Your task to perform on an android device: toggle pop-ups in chrome Image 0: 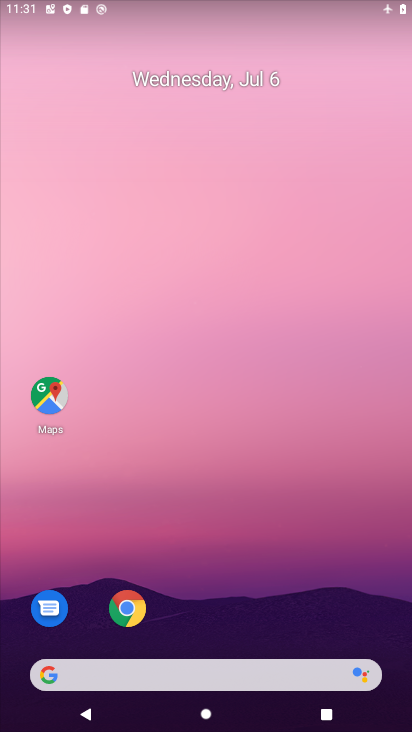
Step 0: click (123, 606)
Your task to perform on an android device: toggle pop-ups in chrome Image 1: 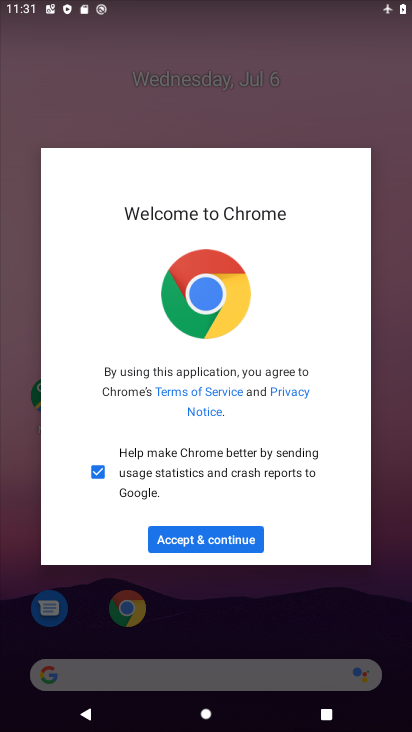
Step 1: click (179, 548)
Your task to perform on an android device: toggle pop-ups in chrome Image 2: 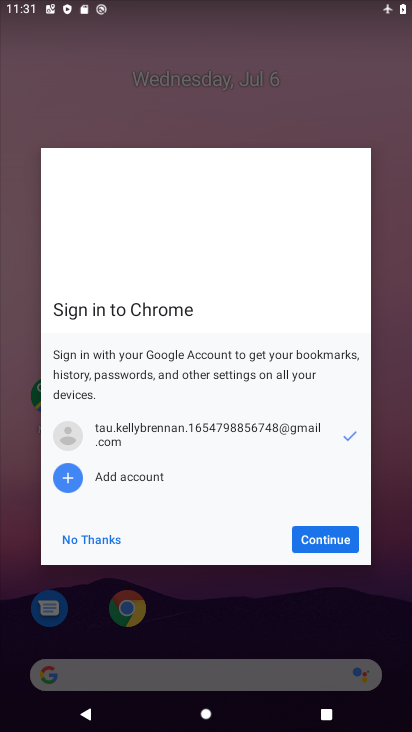
Step 2: click (298, 535)
Your task to perform on an android device: toggle pop-ups in chrome Image 3: 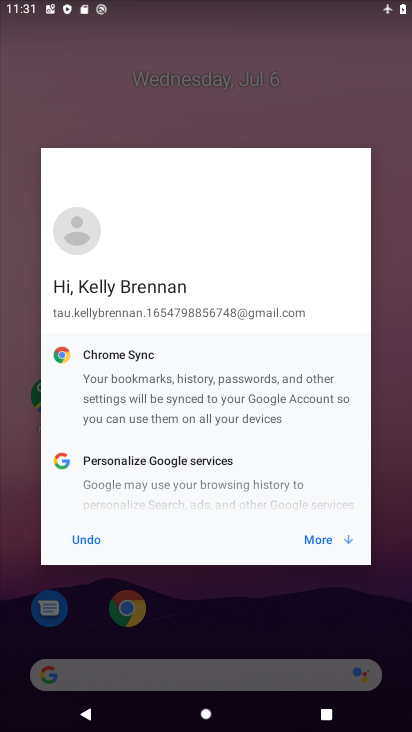
Step 3: click (310, 538)
Your task to perform on an android device: toggle pop-ups in chrome Image 4: 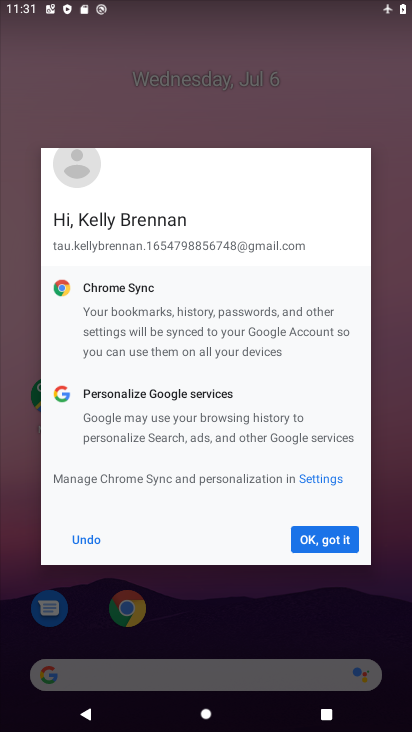
Step 4: click (310, 538)
Your task to perform on an android device: toggle pop-ups in chrome Image 5: 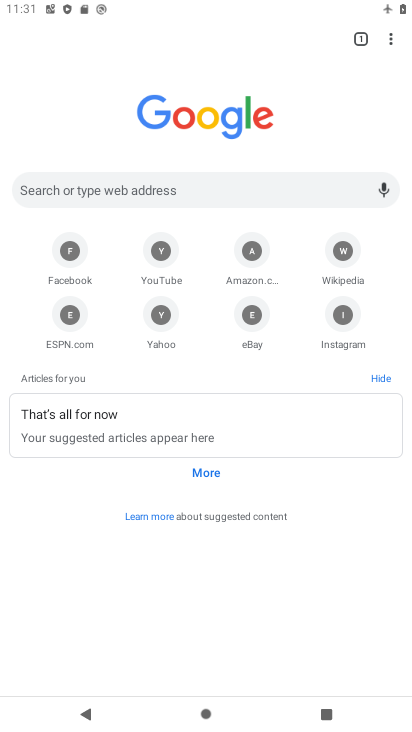
Step 5: click (390, 39)
Your task to perform on an android device: toggle pop-ups in chrome Image 6: 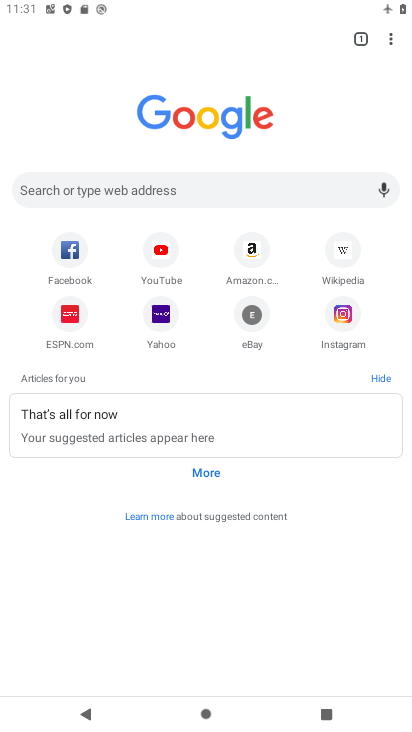
Step 6: click (390, 38)
Your task to perform on an android device: toggle pop-ups in chrome Image 7: 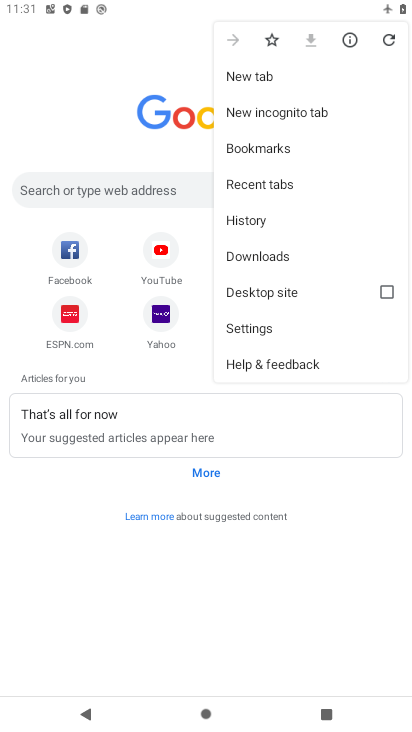
Step 7: click (260, 325)
Your task to perform on an android device: toggle pop-ups in chrome Image 8: 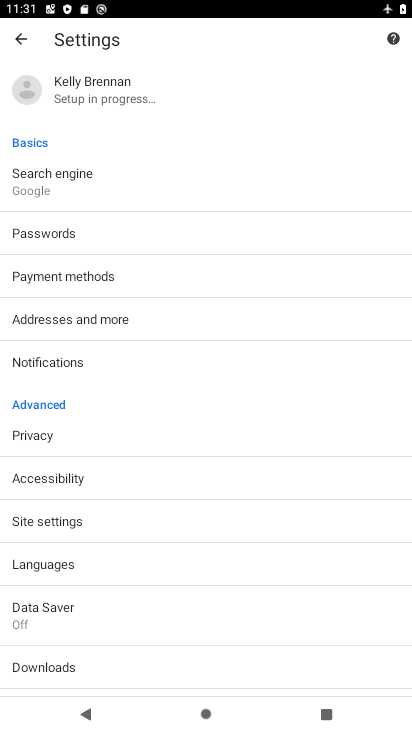
Step 8: drag from (87, 659) to (175, 219)
Your task to perform on an android device: toggle pop-ups in chrome Image 9: 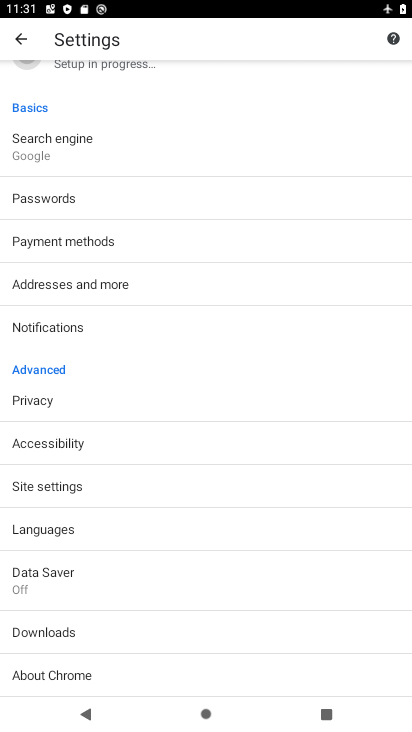
Step 9: click (38, 478)
Your task to perform on an android device: toggle pop-ups in chrome Image 10: 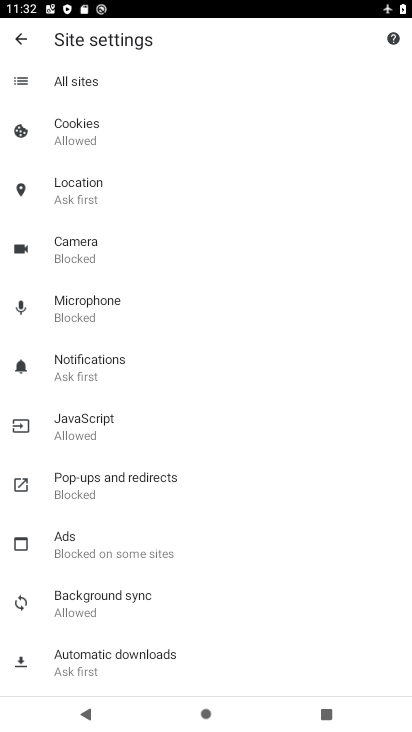
Step 10: click (78, 492)
Your task to perform on an android device: toggle pop-ups in chrome Image 11: 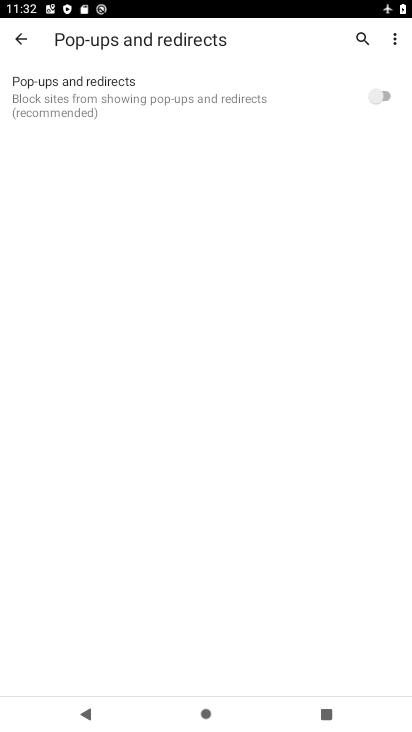
Step 11: click (388, 94)
Your task to perform on an android device: toggle pop-ups in chrome Image 12: 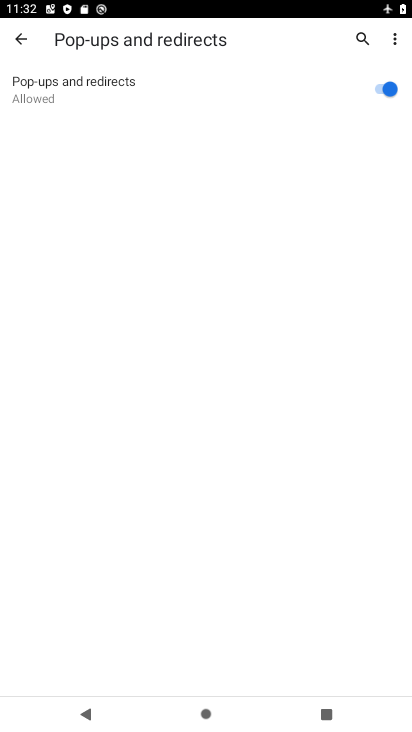
Step 12: task complete